Your task to perform on an android device: Open Reddit.com Image 0: 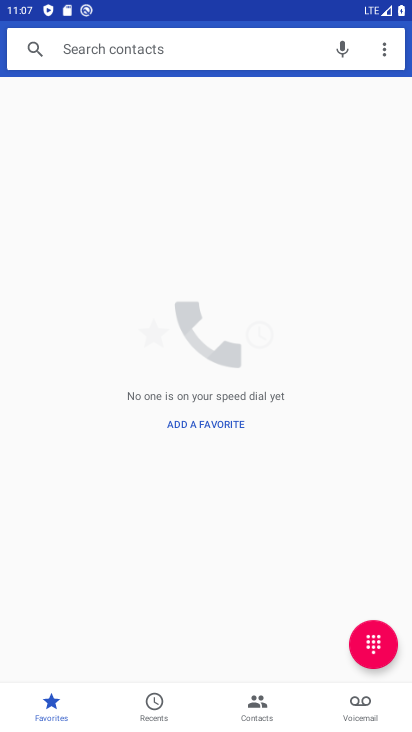
Step 0: press home button
Your task to perform on an android device: Open Reddit.com Image 1: 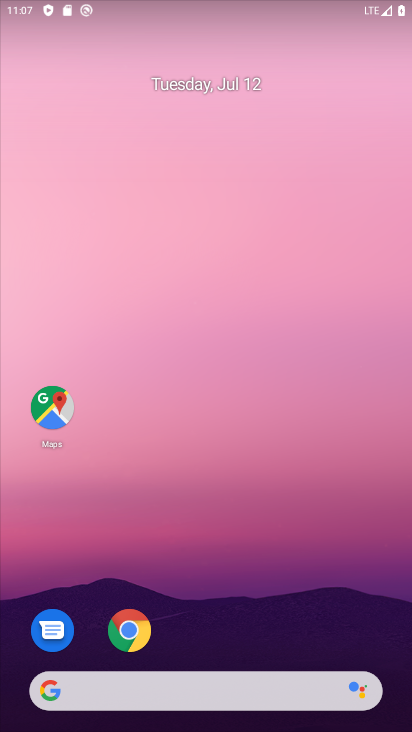
Step 1: drag from (387, 676) to (171, 45)
Your task to perform on an android device: Open Reddit.com Image 2: 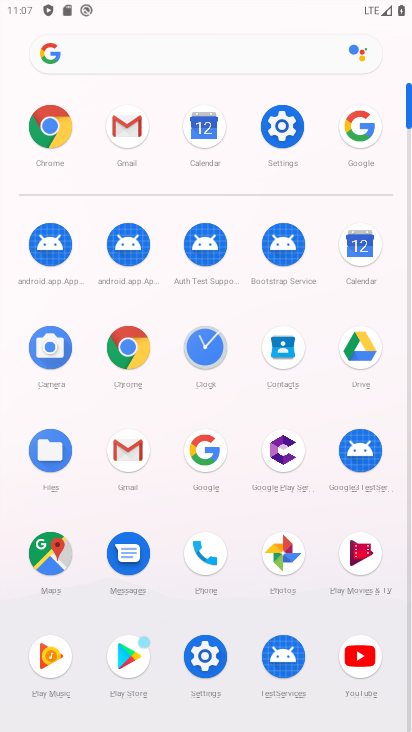
Step 2: click (201, 454)
Your task to perform on an android device: Open Reddit.com Image 3: 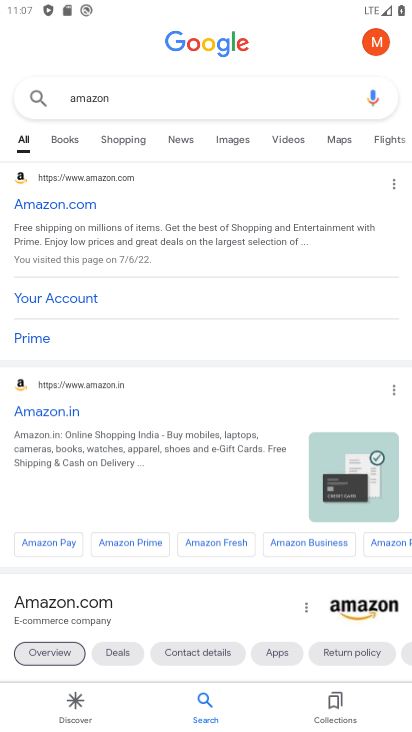
Step 3: press back button
Your task to perform on an android device: Open Reddit.com Image 4: 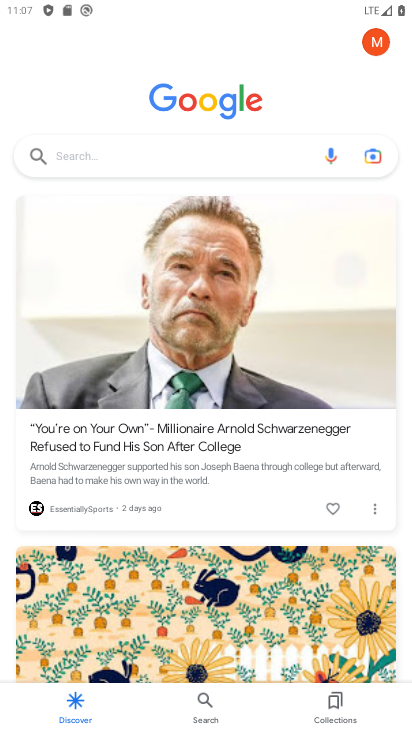
Step 4: click (113, 151)
Your task to perform on an android device: Open Reddit.com Image 5: 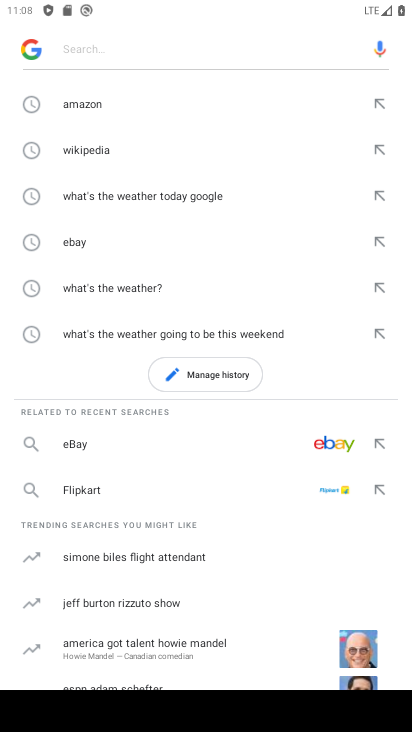
Step 5: type "Reddit.com"
Your task to perform on an android device: Open Reddit.com Image 6: 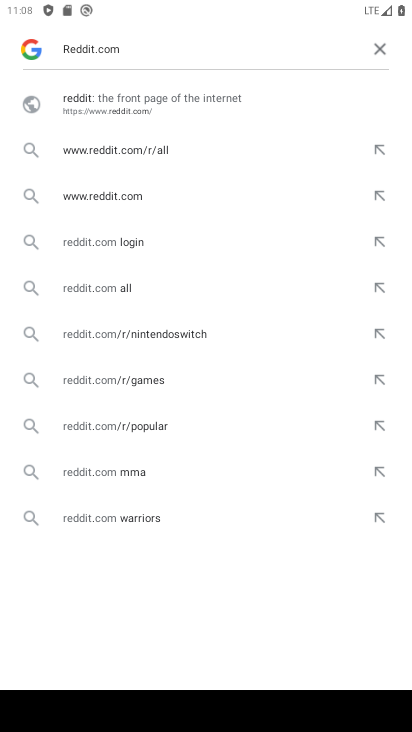
Step 6: click (148, 95)
Your task to perform on an android device: Open Reddit.com Image 7: 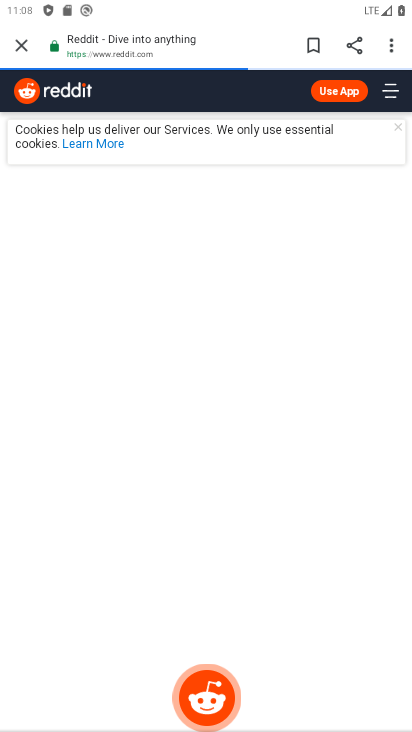
Step 7: task complete